Your task to perform on an android device: empty trash in the gmail app Image 0: 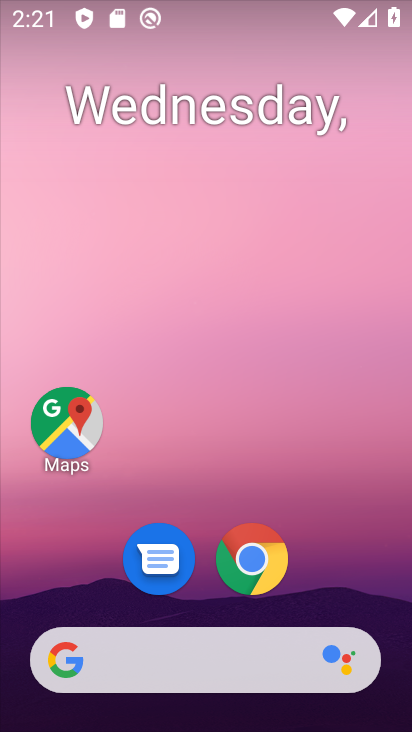
Step 0: drag from (331, 540) to (321, 117)
Your task to perform on an android device: empty trash in the gmail app Image 1: 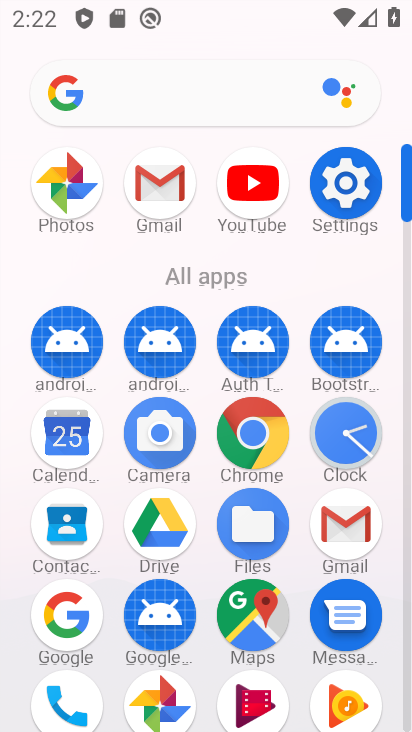
Step 1: click (146, 696)
Your task to perform on an android device: empty trash in the gmail app Image 2: 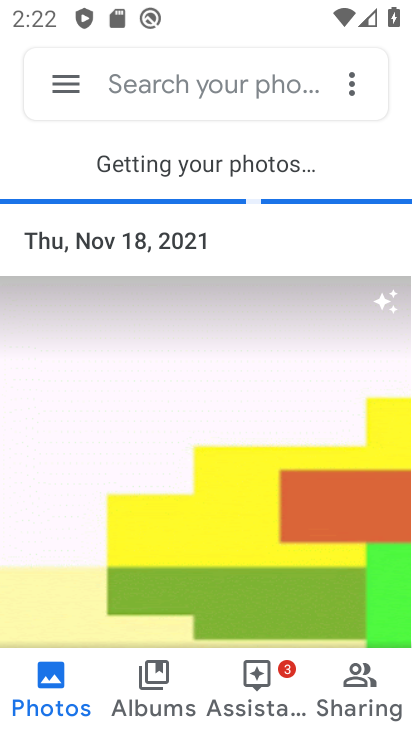
Step 2: click (74, 68)
Your task to perform on an android device: empty trash in the gmail app Image 3: 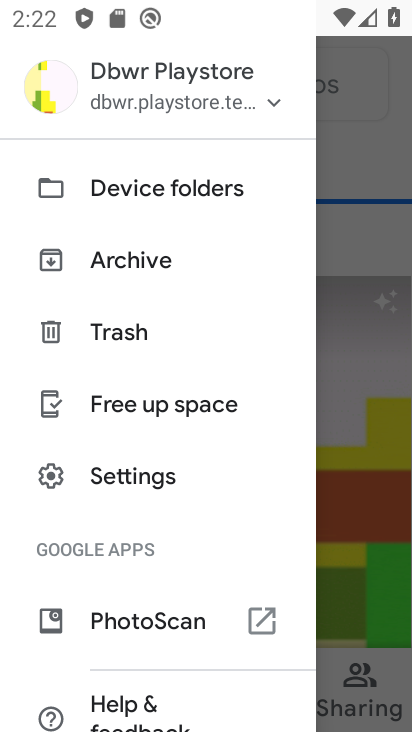
Step 3: click (117, 344)
Your task to perform on an android device: empty trash in the gmail app Image 4: 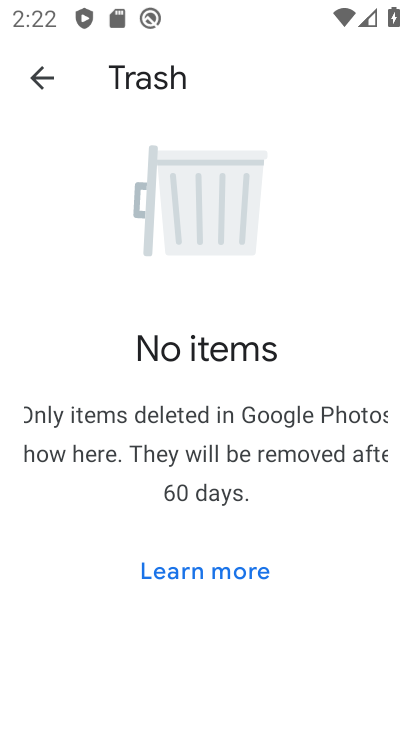
Step 4: task complete